Your task to perform on an android device: open app "Flipkart Online Shopping App" (install if not already installed) Image 0: 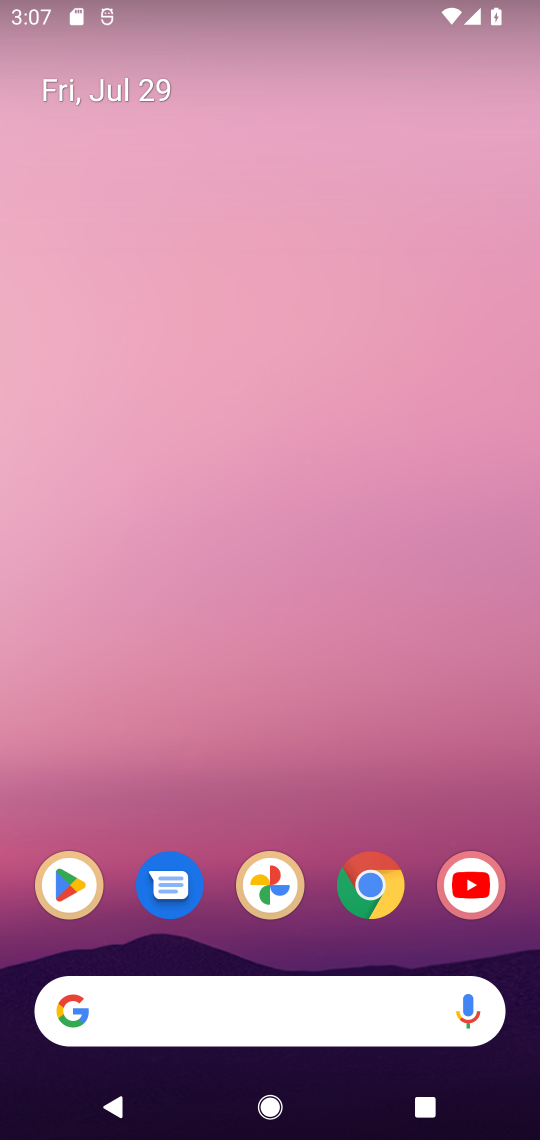
Step 0: click (71, 880)
Your task to perform on an android device: open app "Flipkart Online Shopping App" (install if not already installed) Image 1: 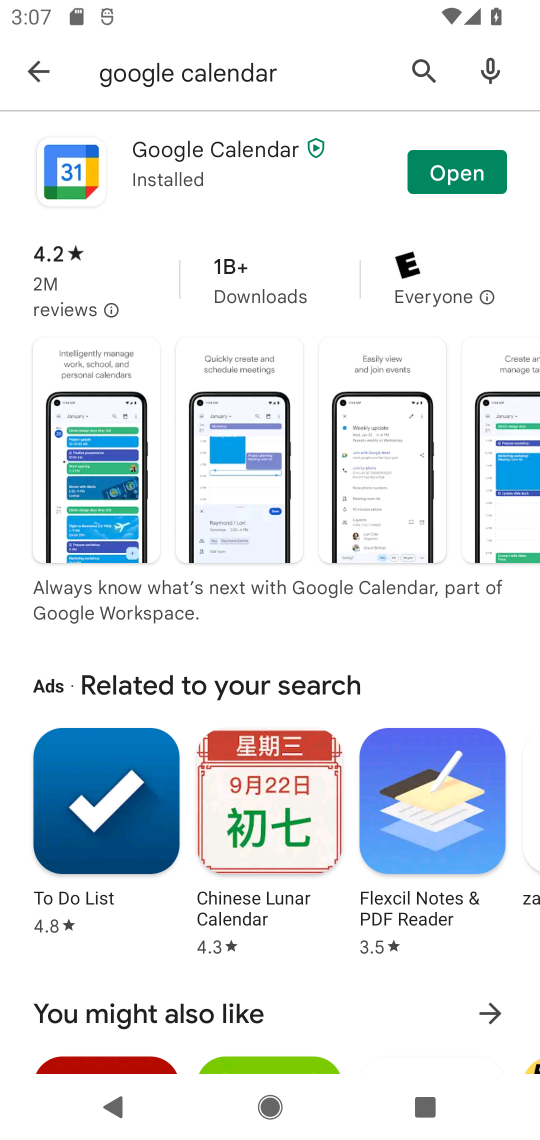
Step 1: click (423, 78)
Your task to perform on an android device: open app "Flipkart Online Shopping App" (install if not already installed) Image 2: 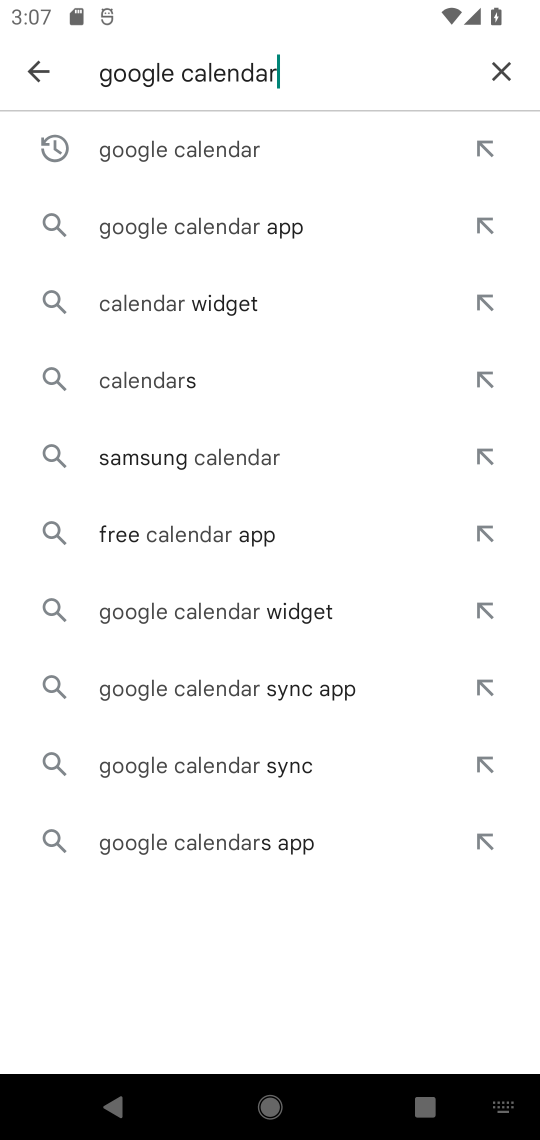
Step 2: click (498, 70)
Your task to perform on an android device: open app "Flipkart Online Shopping App" (install if not already installed) Image 3: 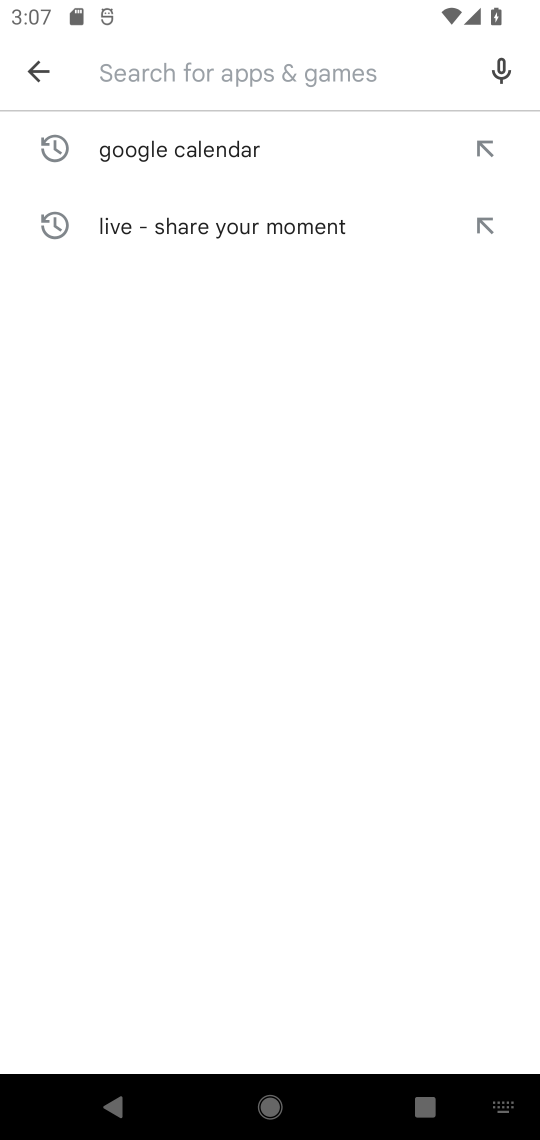
Step 3: type "Flipkart Online Shopping App"
Your task to perform on an android device: open app "Flipkart Online Shopping App" (install if not already installed) Image 4: 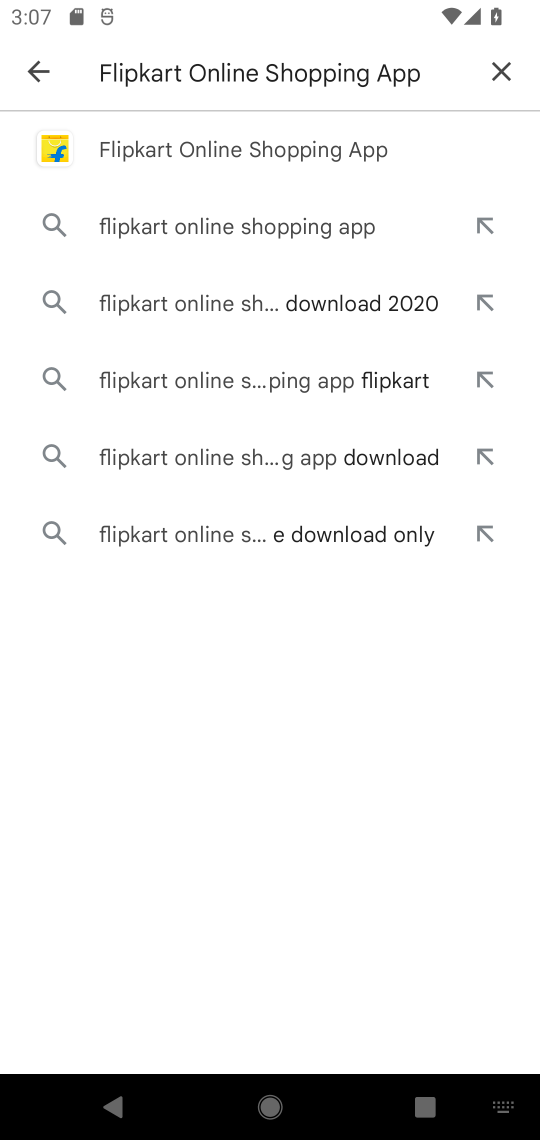
Step 4: click (353, 151)
Your task to perform on an android device: open app "Flipkart Online Shopping App" (install if not already installed) Image 5: 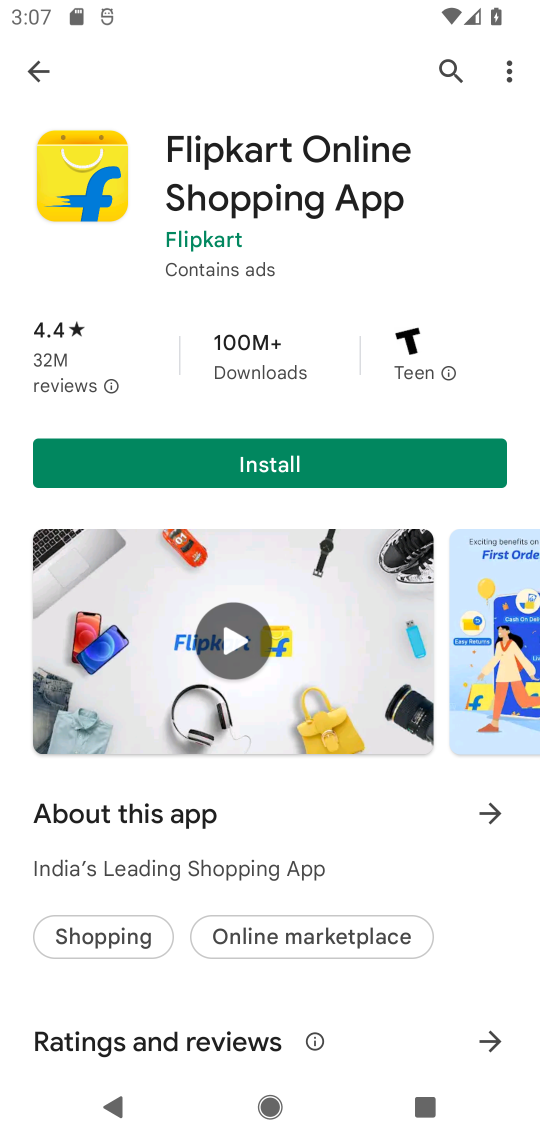
Step 5: click (224, 454)
Your task to perform on an android device: open app "Flipkart Online Shopping App" (install if not already installed) Image 6: 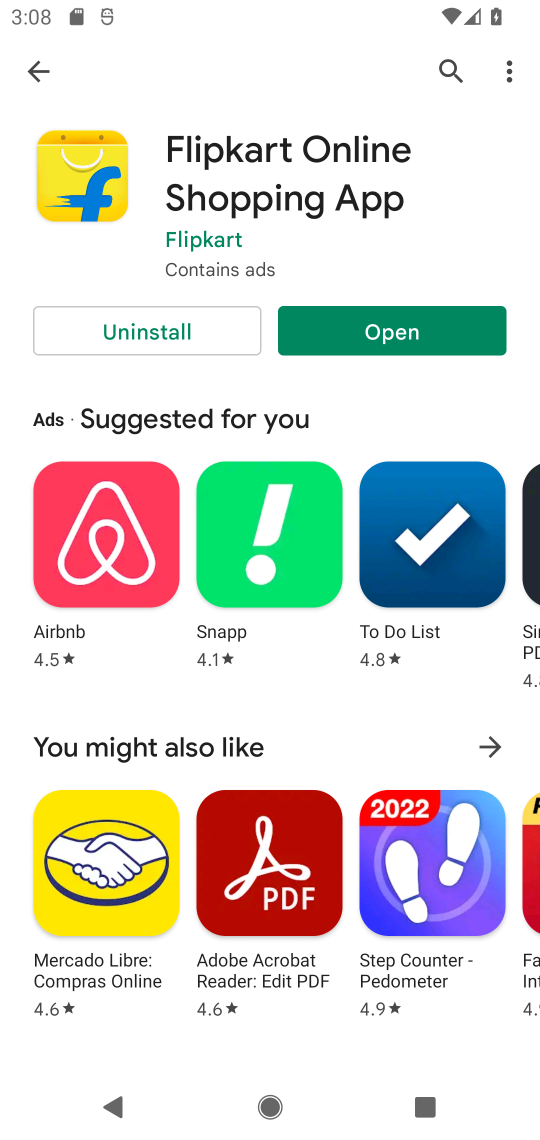
Step 6: click (427, 338)
Your task to perform on an android device: open app "Flipkart Online Shopping App" (install if not already installed) Image 7: 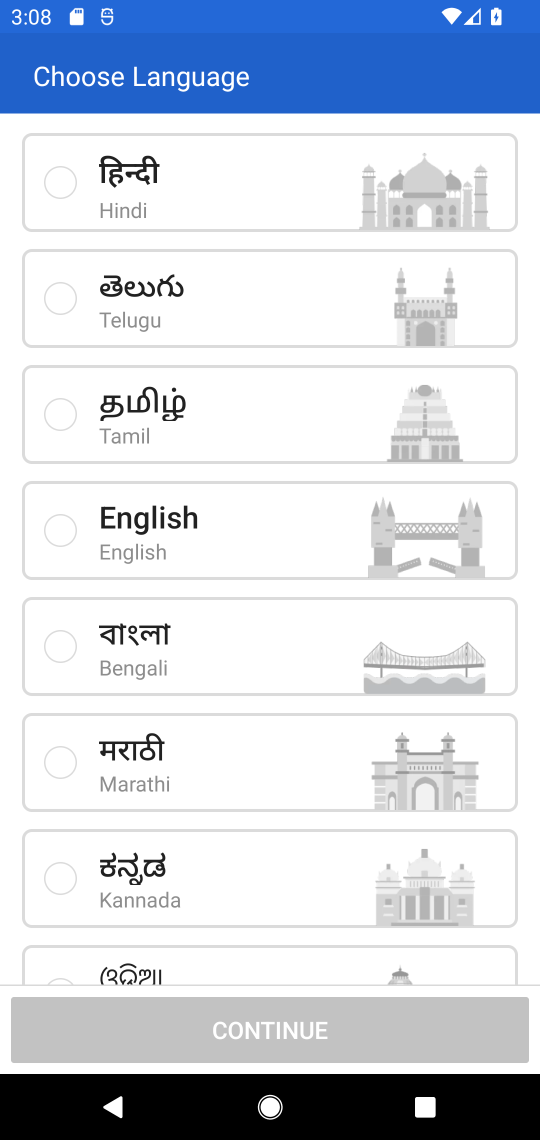
Step 7: click (150, 491)
Your task to perform on an android device: open app "Flipkart Online Shopping App" (install if not already installed) Image 8: 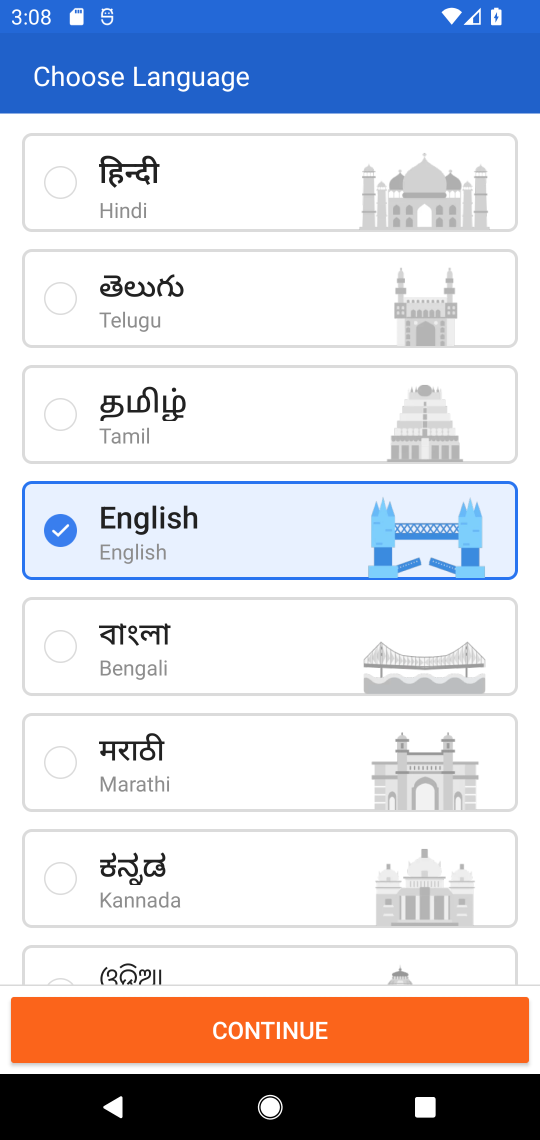
Step 8: click (148, 505)
Your task to perform on an android device: open app "Flipkart Online Shopping App" (install if not already installed) Image 9: 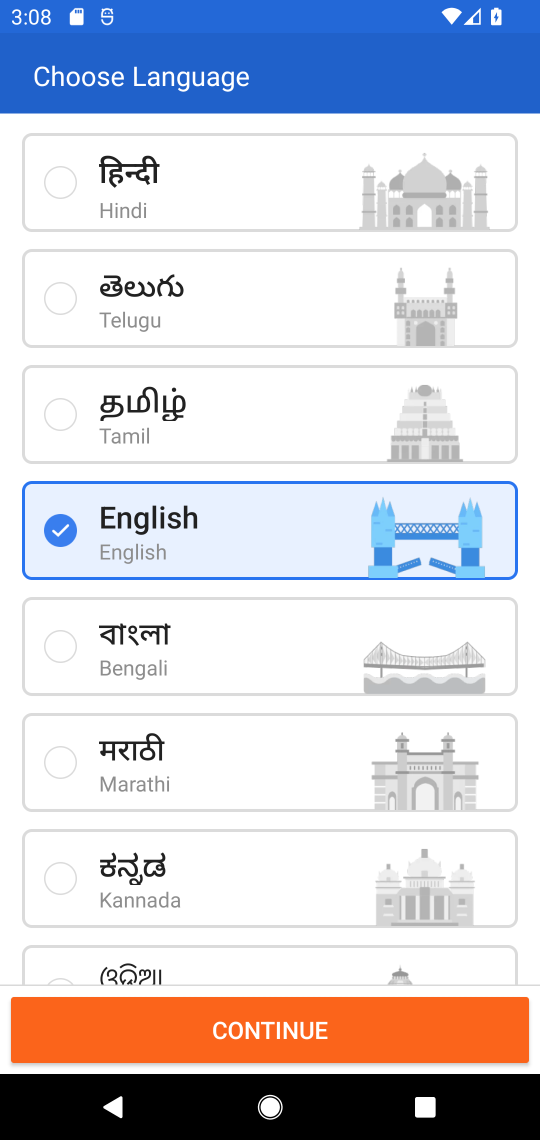
Step 9: click (201, 1037)
Your task to perform on an android device: open app "Flipkart Online Shopping App" (install if not already installed) Image 10: 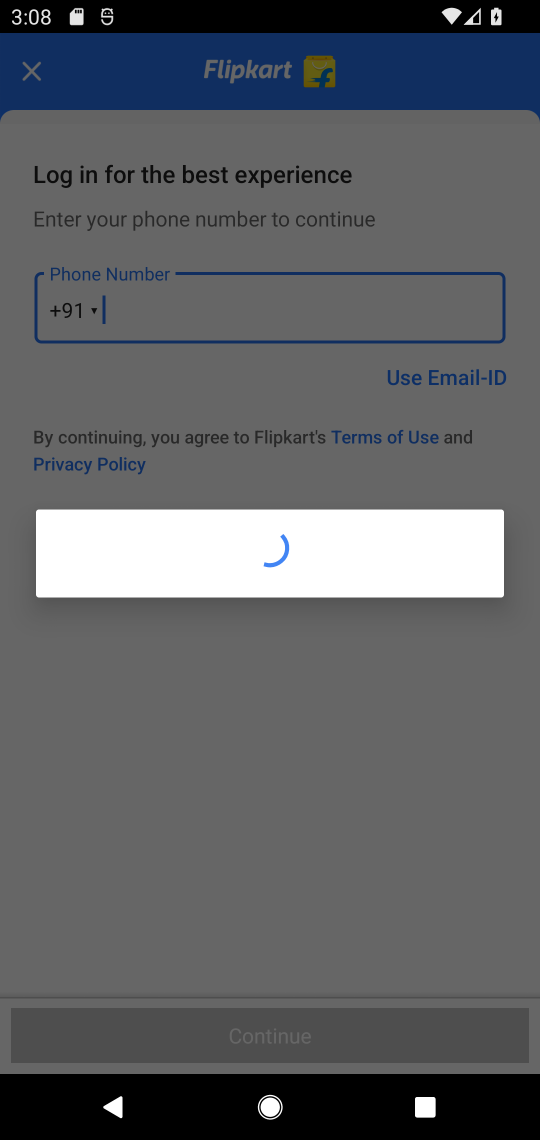
Step 10: task complete